Your task to perform on an android device: turn on data saver in the chrome app Image 0: 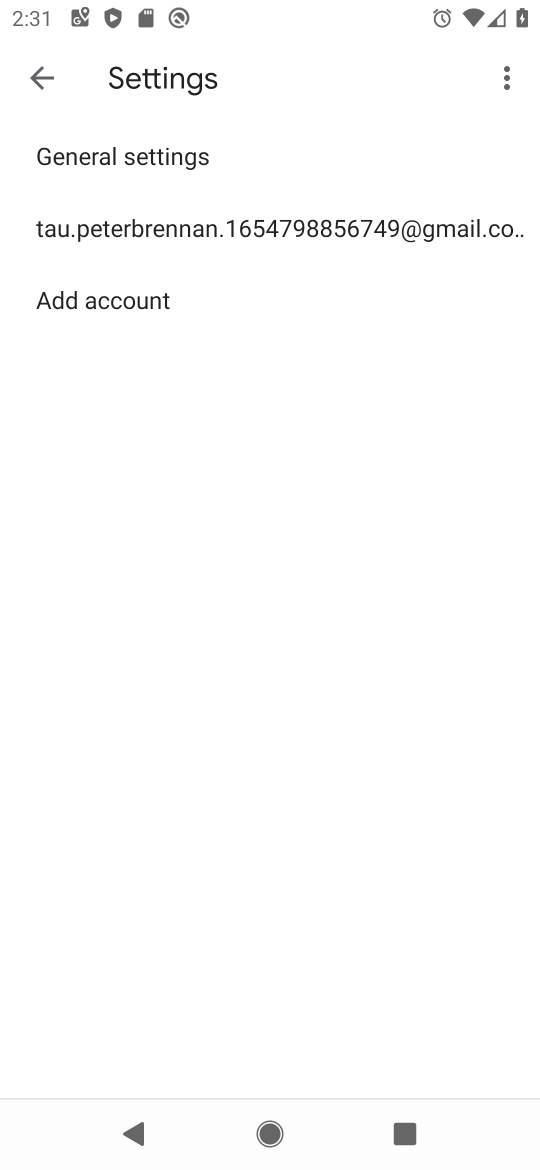
Step 0: press home button
Your task to perform on an android device: turn on data saver in the chrome app Image 1: 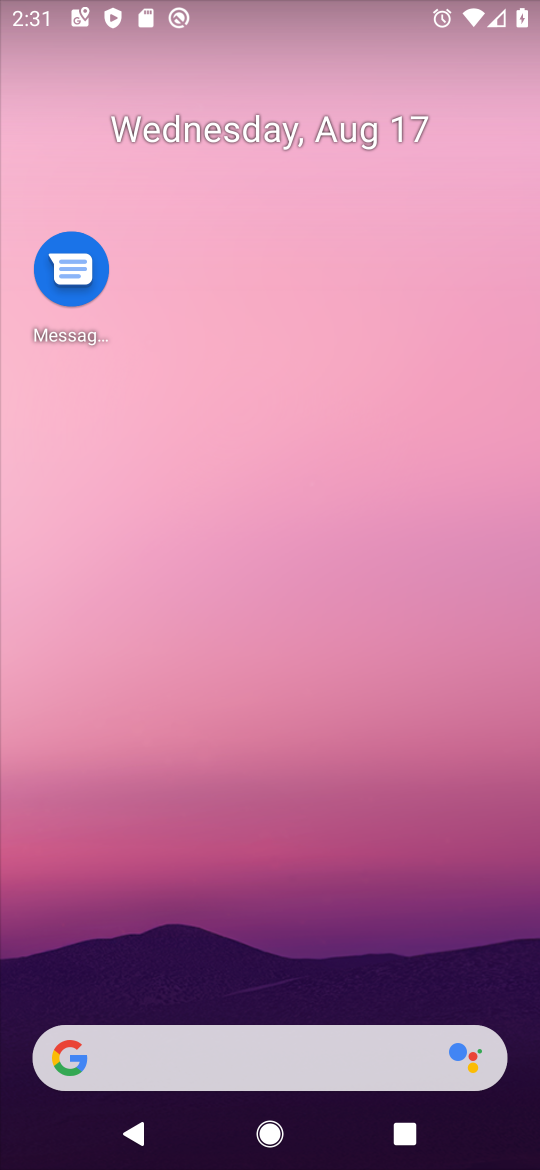
Step 1: drag from (252, 941) to (294, 14)
Your task to perform on an android device: turn on data saver in the chrome app Image 2: 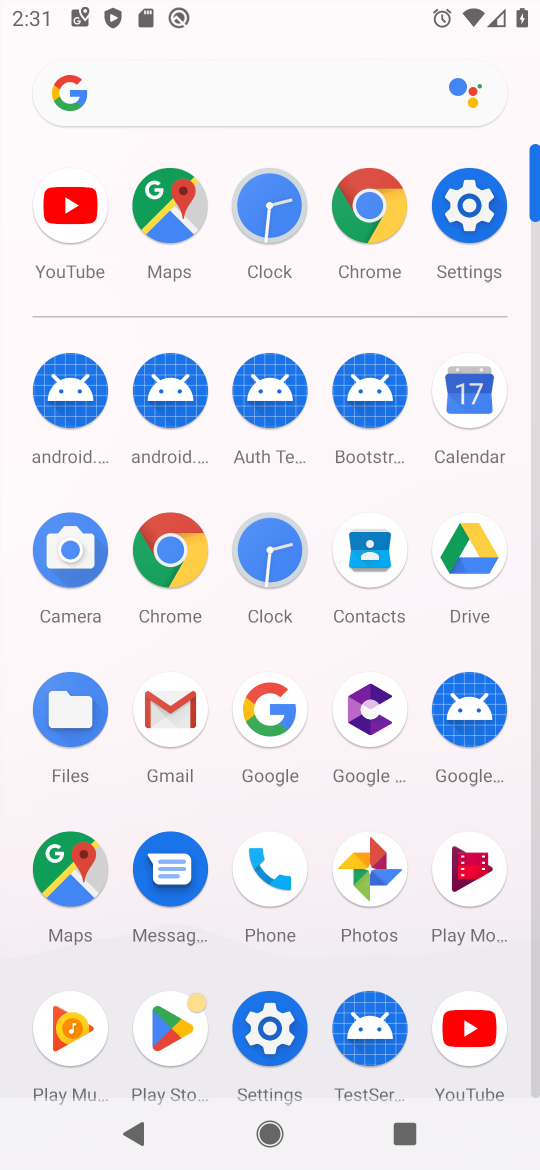
Step 2: click (388, 212)
Your task to perform on an android device: turn on data saver in the chrome app Image 3: 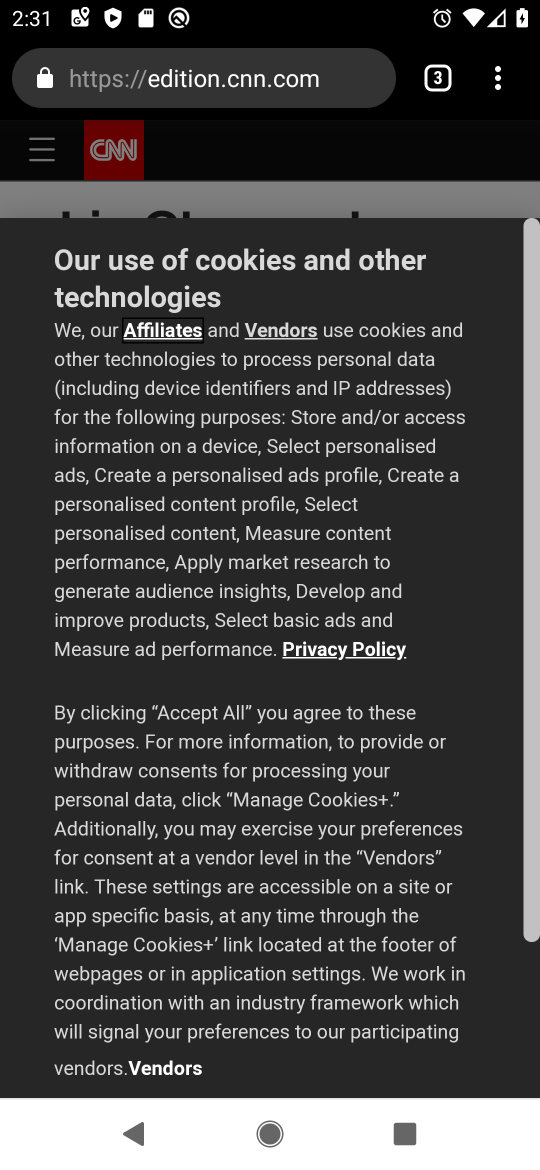
Step 3: click (498, 82)
Your task to perform on an android device: turn on data saver in the chrome app Image 4: 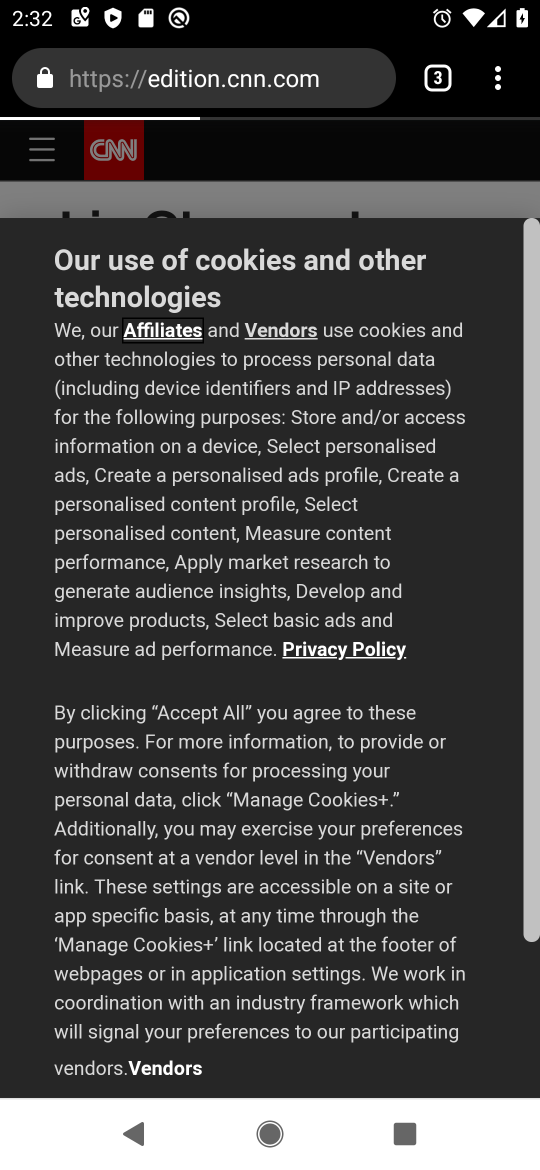
Step 4: click (494, 83)
Your task to perform on an android device: turn on data saver in the chrome app Image 5: 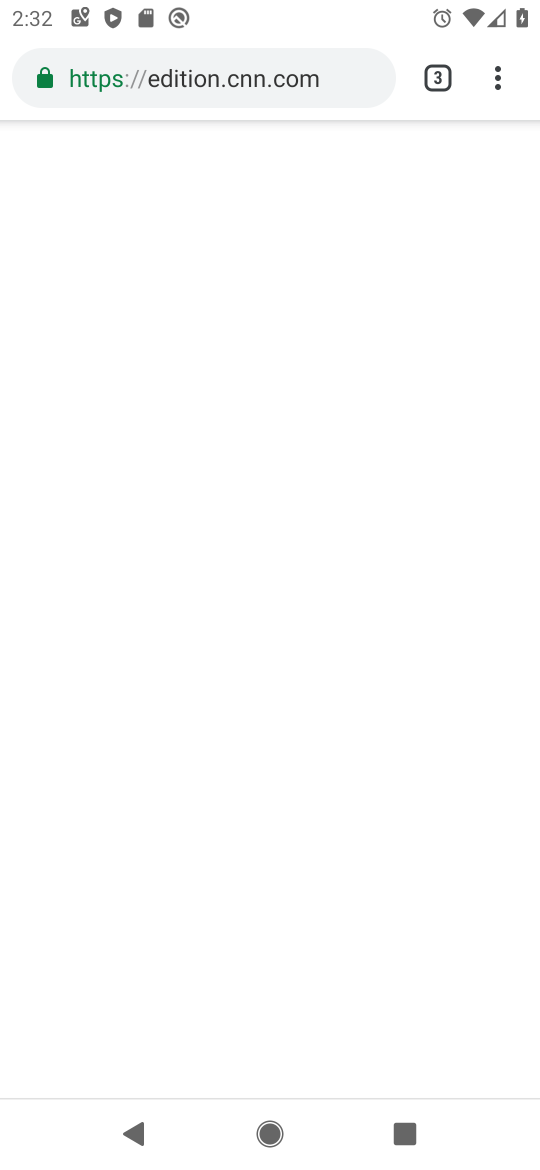
Step 5: drag from (494, 83) to (216, 956)
Your task to perform on an android device: turn on data saver in the chrome app Image 6: 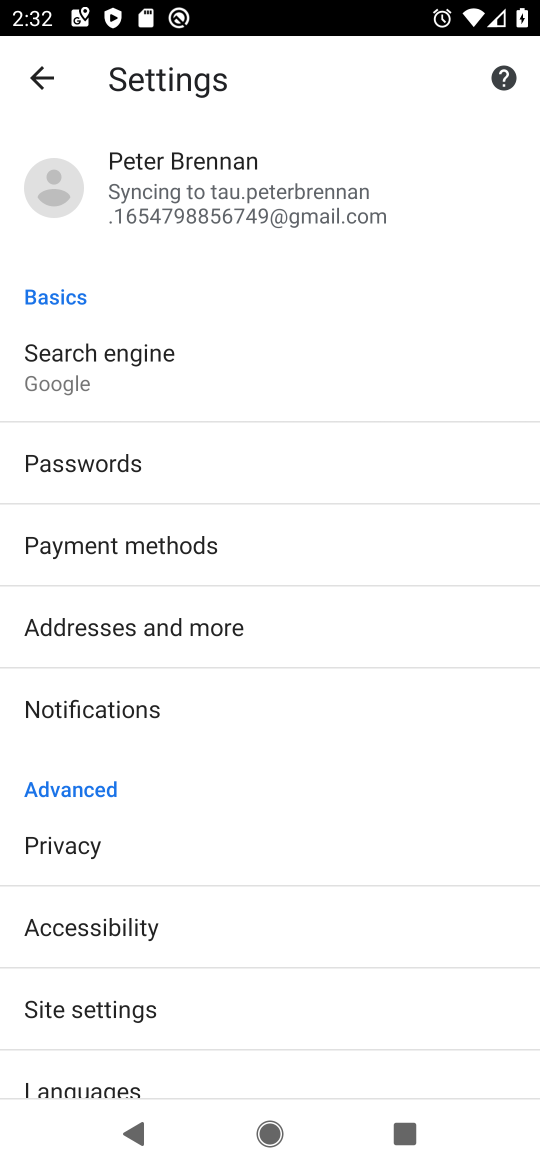
Step 6: drag from (154, 944) to (73, 266)
Your task to perform on an android device: turn on data saver in the chrome app Image 7: 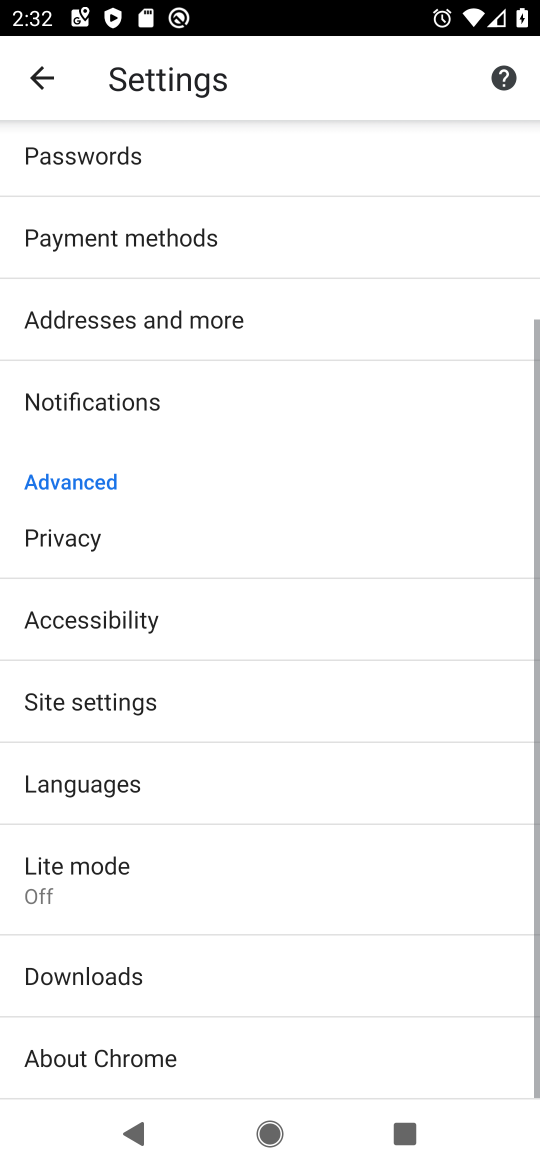
Step 7: click (141, 873)
Your task to perform on an android device: turn on data saver in the chrome app Image 8: 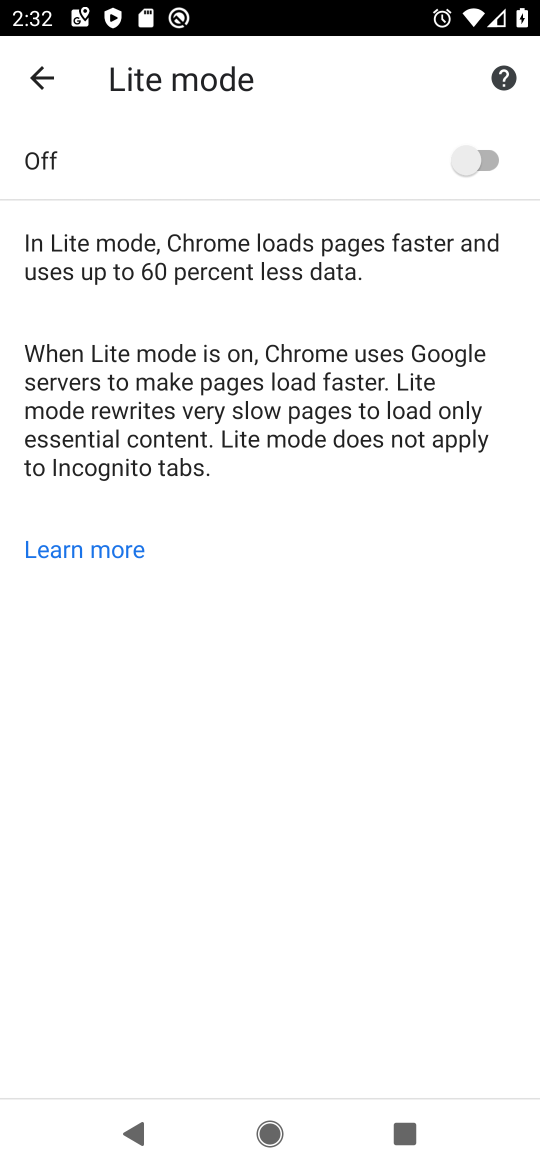
Step 8: click (458, 180)
Your task to perform on an android device: turn on data saver in the chrome app Image 9: 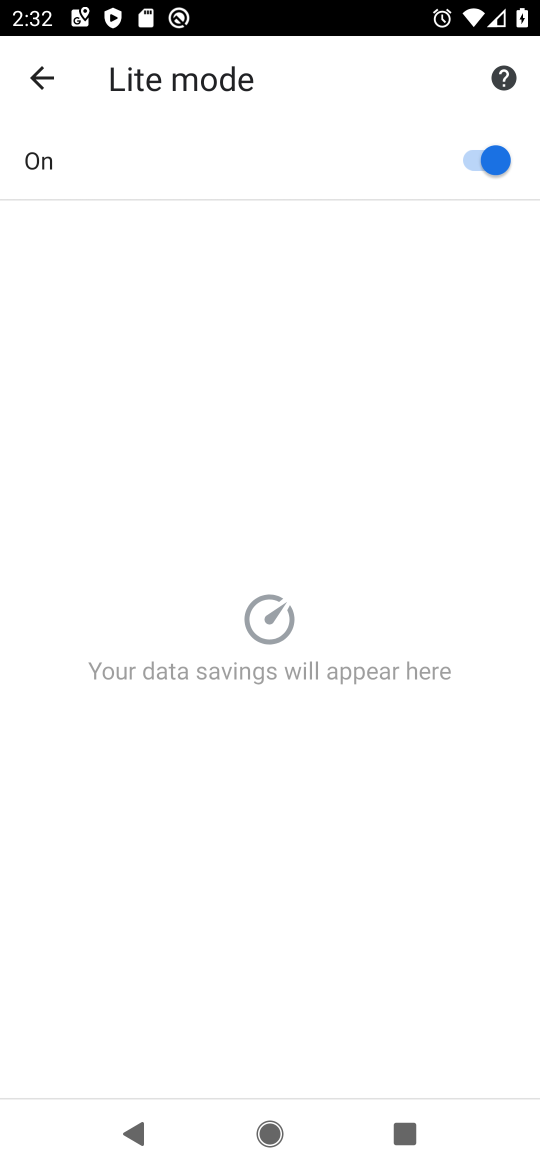
Step 9: task complete